Your task to perform on an android device: Go to Wikipedia Image 0: 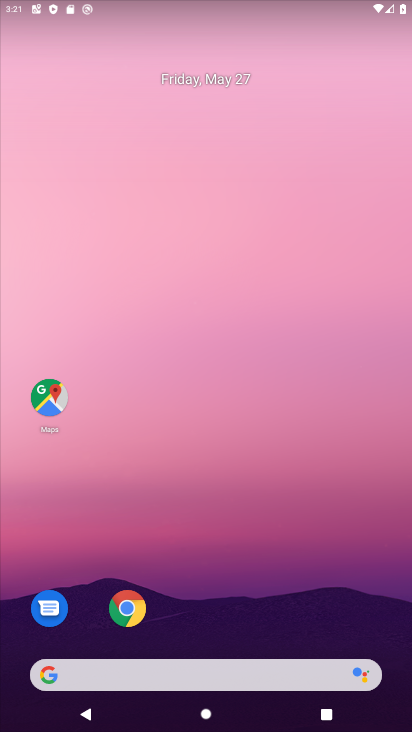
Step 0: click (127, 603)
Your task to perform on an android device: Go to Wikipedia Image 1: 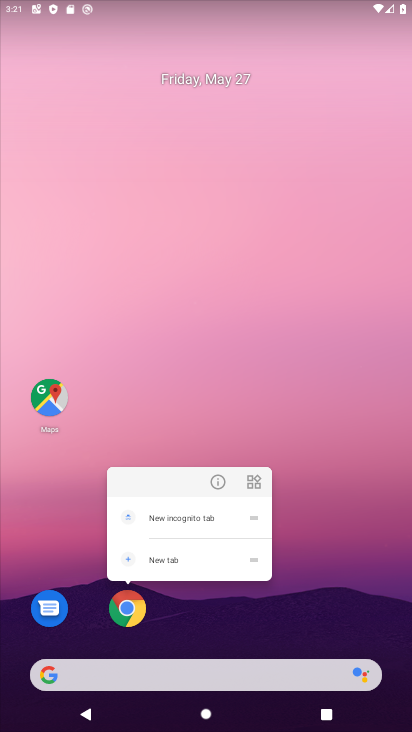
Step 1: click (124, 600)
Your task to perform on an android device: Go to Wikipedia Image 2: 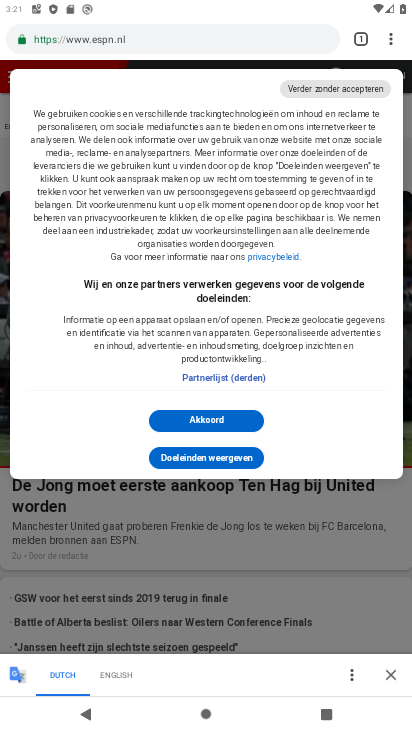
Step 2: click (358, 39)
Your task to perform on an android device: Go to Wikipedia Image 3: 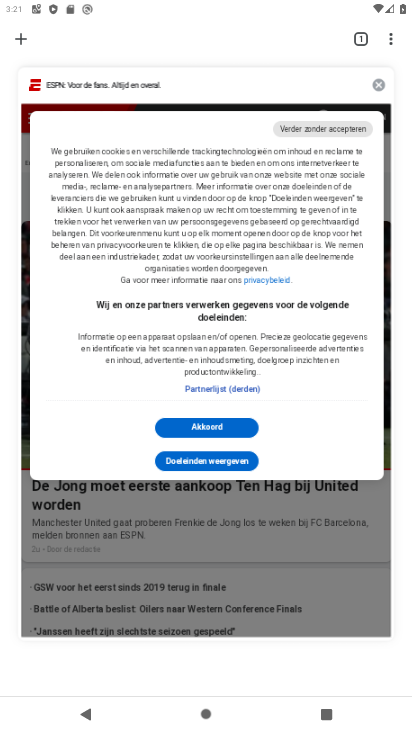
Step 3: click (383, 82)
Your task to perform on an android device: Go to Wikipedia Image 4: 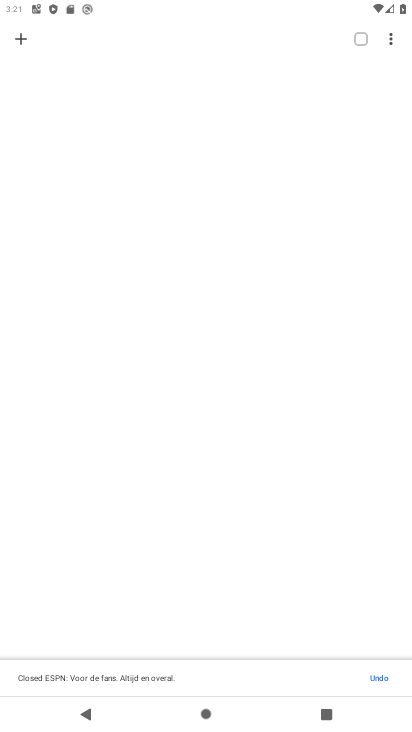
Step 4: click (23, 38)
Your task to perform on an android device: Go to Wikipedia Image 5: 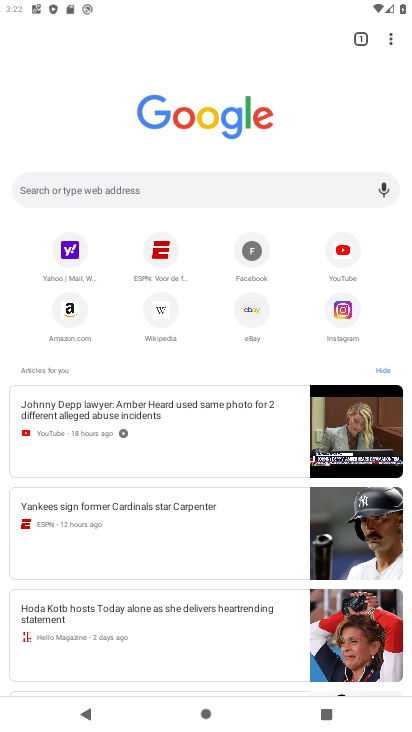
Step 5: click (156, 313)
Your task to perform on an android device: Go to Wikipedia Image 6: 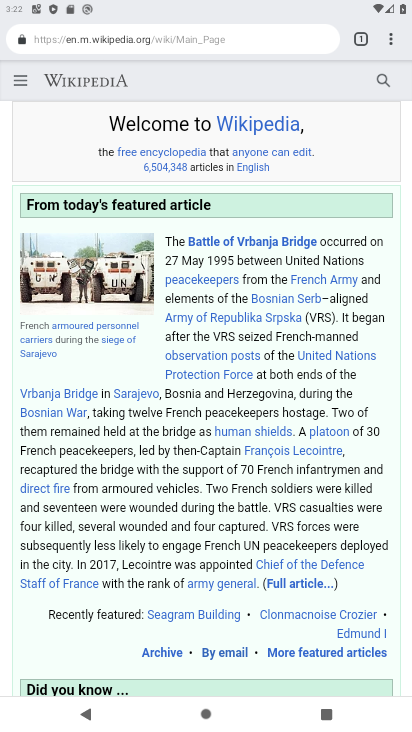
Step 6: task complete